Your task to perform on an android device: Go to battery settings Image 0: 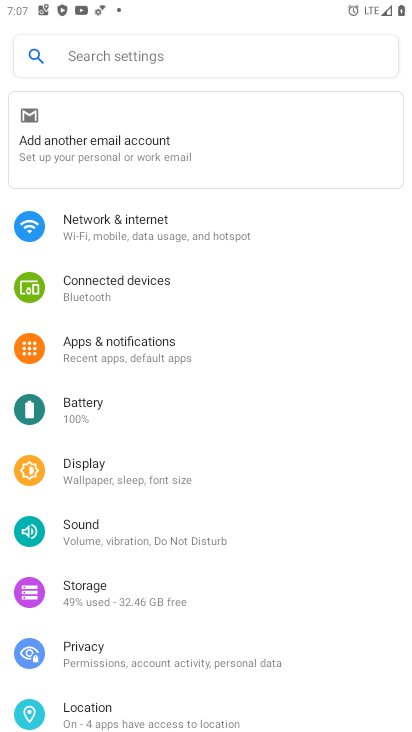
Step 0: click (75, 405)
Your task to perform on an android device: Go to battery settings Image 1: 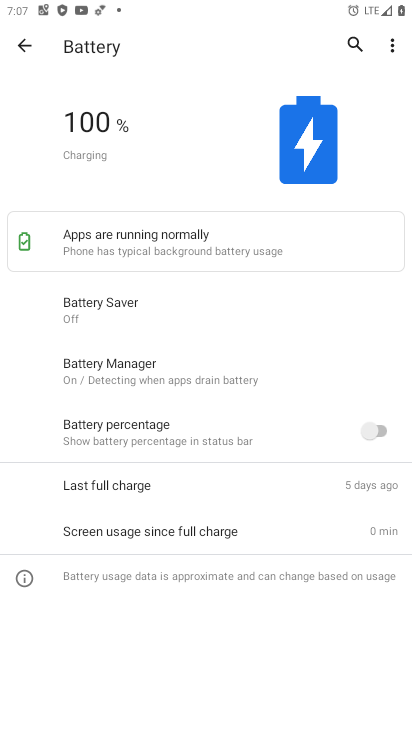
Step 1: task complete